Your task to perform on an android device: turn off notifications settings in the gmail app Image 0: 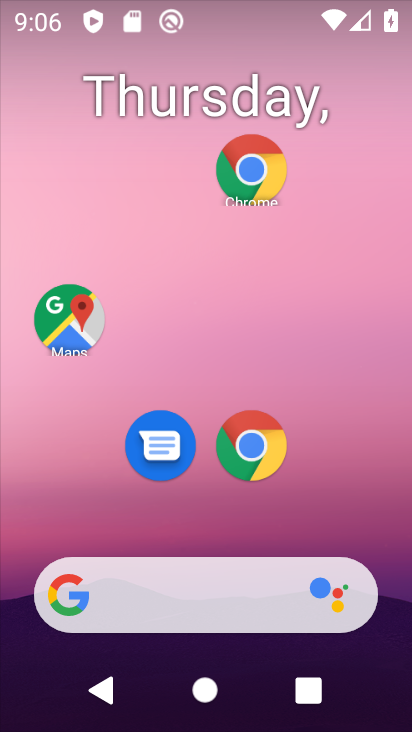
Step 0: task complete